Your task to perform on an android device: Go to settings Image 0: 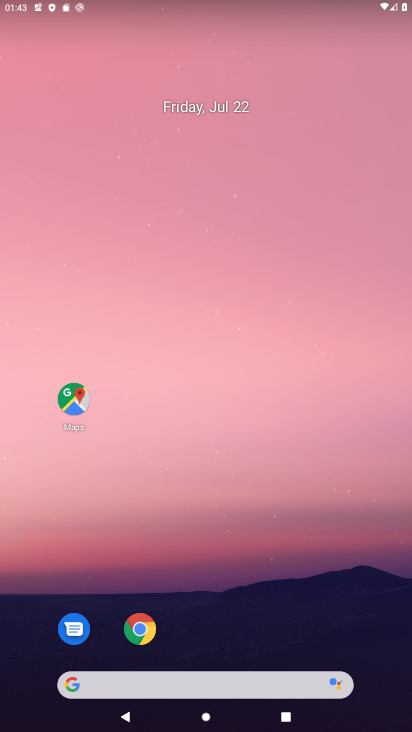
Step 0: drag from (0, 0) to (240, 71)
Your task to perform on an android device: Go to settings Image 1: 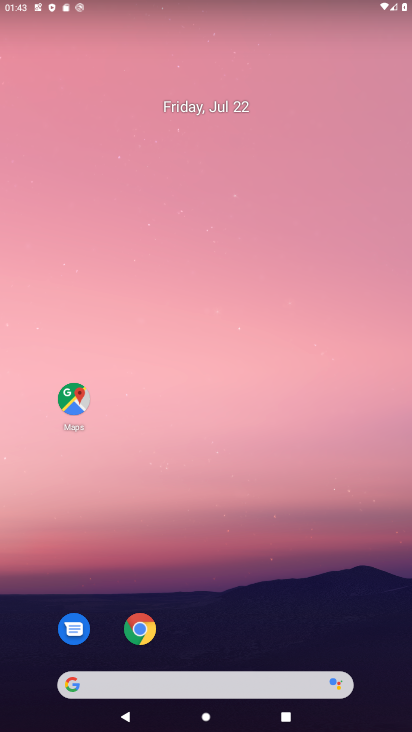
Step 1: drag from (1, 659) to (322, 100)
Your task to perform on an android device: Go to settings Image 2: 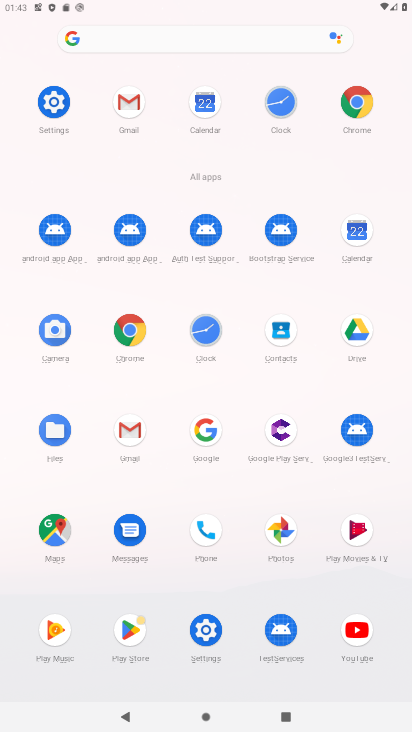
Step 2: click (45, 110)
Your task to perform on an android device: Go to settings Image 3: 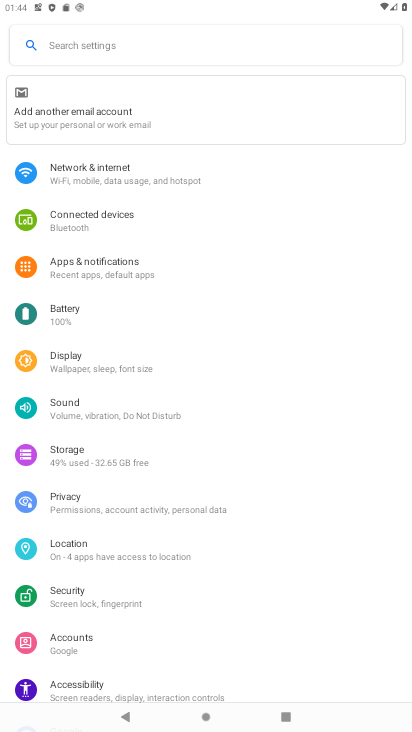
Step 3: task complete